Your task to perform on an android device: Open calendar and show me the second week of next month Image 0: 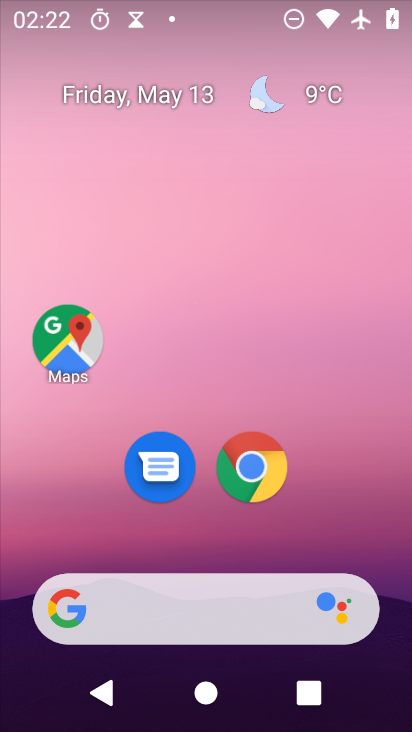
Step 0: click (155, 94)
Your task to perform on an android device: Open calendar and show me the second week of next month Image 1: 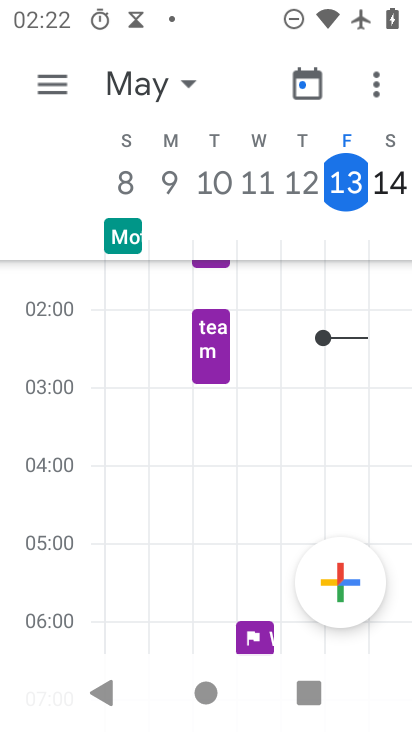
Step 1: click (185, 79)
Your task to perform on an android device: Open calendar and show me the second week of next month Image 2: 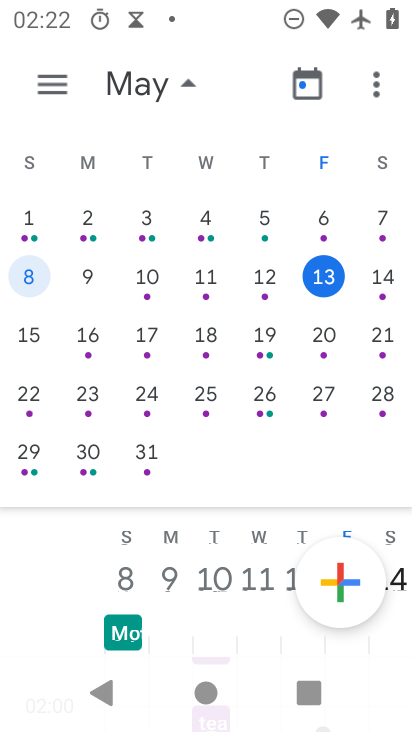
Step 2: drag from (366, 318) to (15, 266)
Your task to perform on an android device: Open calendar and show me the second week of next month Image 3: 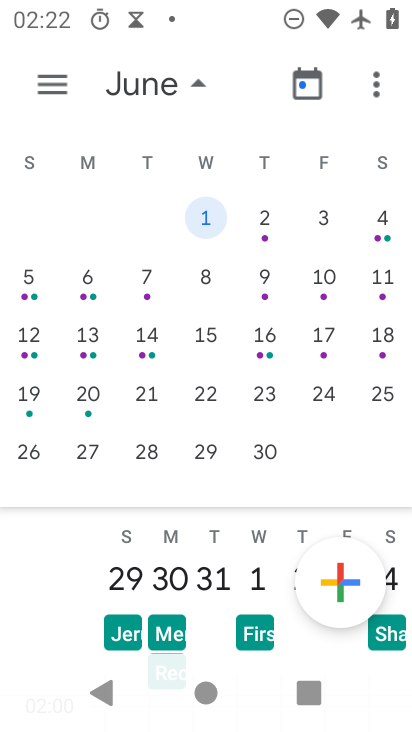
Step 3: click (32, 283)
Your task to perform on an android device: Open calendar and show me the second week of next month Image 4: 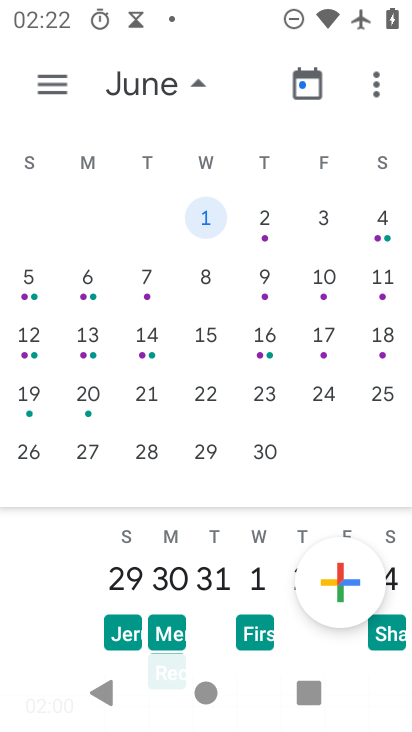
Step 4: click (33, 277)
Your task to perform on an android device: Open calendar and show me the second week of next month Image 5: 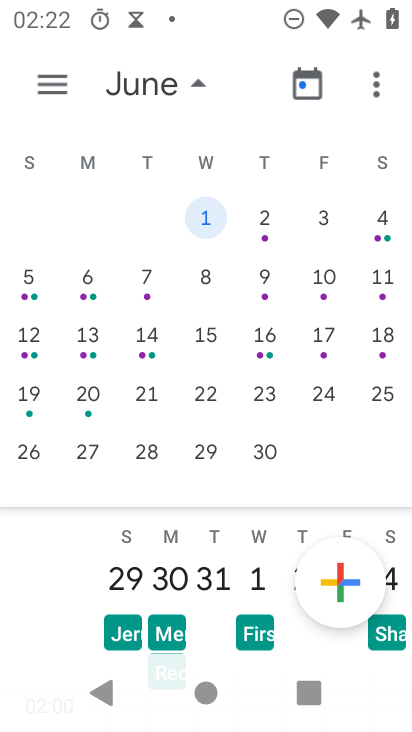
Step 5: click (39, 273)
Your task to perform on an android device: Open calendar and show me the second week of next month Image 6: 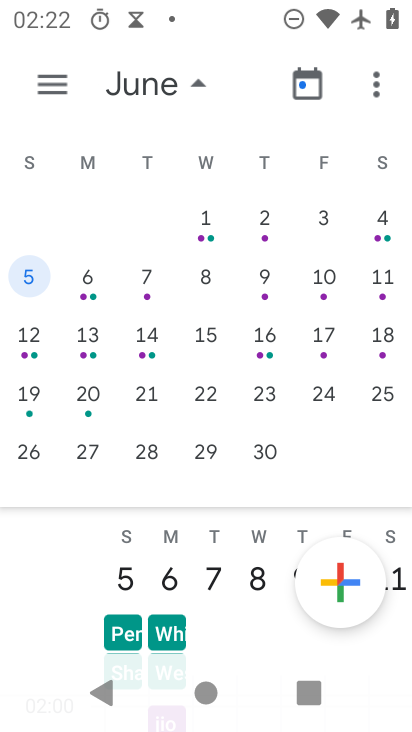
Step 6: task complete